Your task to perform on an android device: What is the recent news? Image 0: 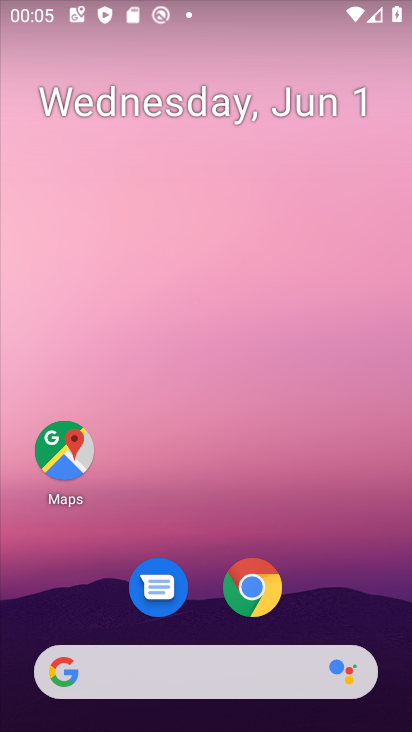
Step 0: click (141, 669)
Your task to perform on an android device: What is the recent news? Image 1: 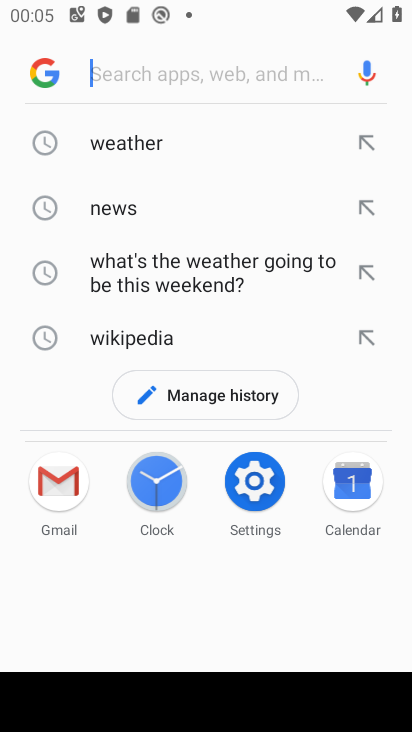
Step 1: type "what is the recent news"
Your task to perform on an android device: What is the recent news? Image 2: 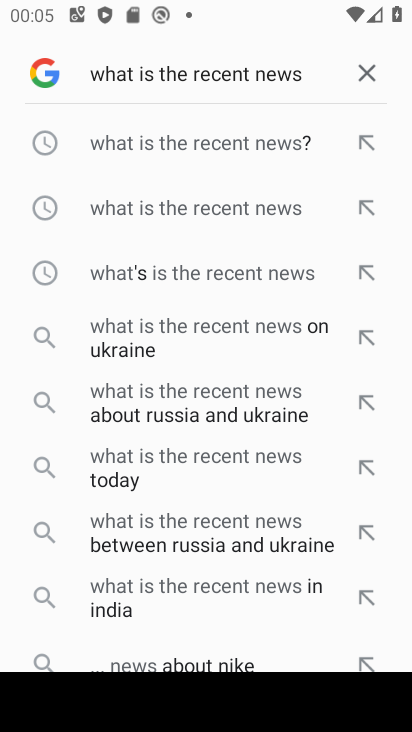
Step 2: click (196, 137)
Your task to perform on an android device: What is the recent news? Image 3: 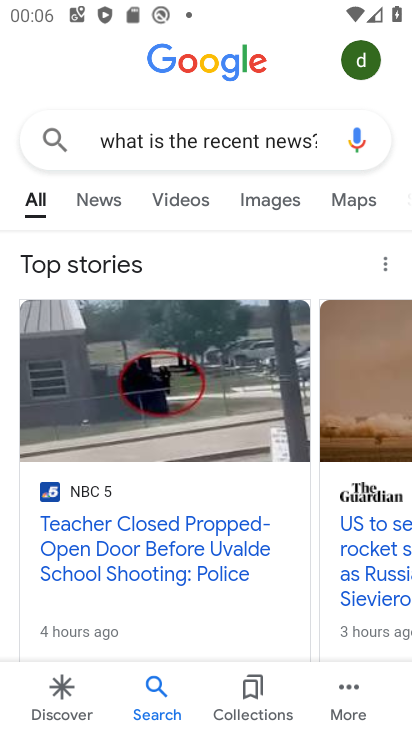
Step 3: click (122, 210)
Your task to perform on an android device: What is the recent news? Image 4: 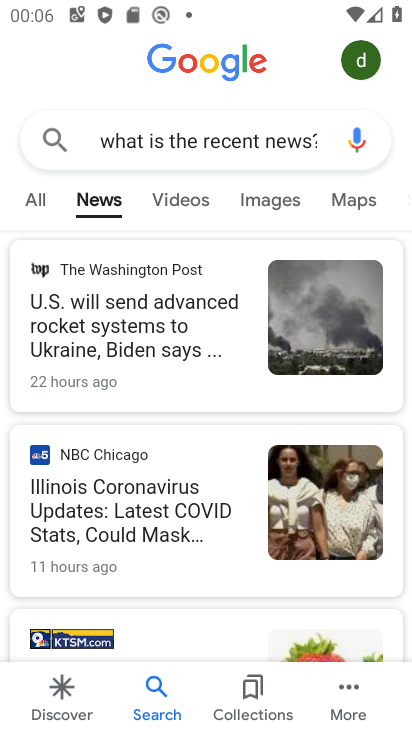
Step 4: task complete